Your task to perform on an android device: open the mobile data screen to see how much data has been used Image 0: 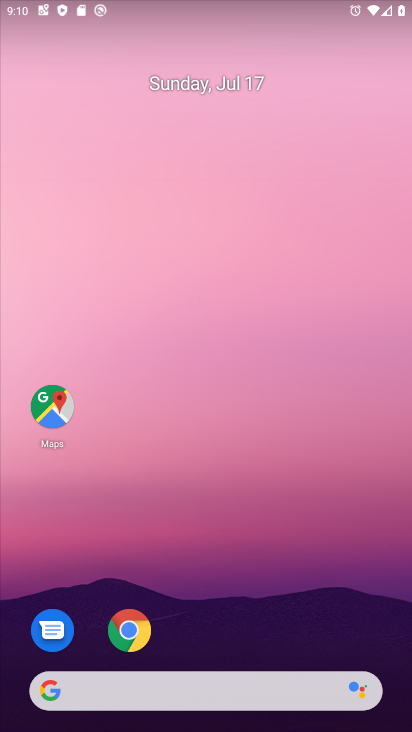
Step 0: drag from (340, 612) to (366, 140)
Your task to perform on an android device: open the mobile data screen to see how much data has been used Image 1: 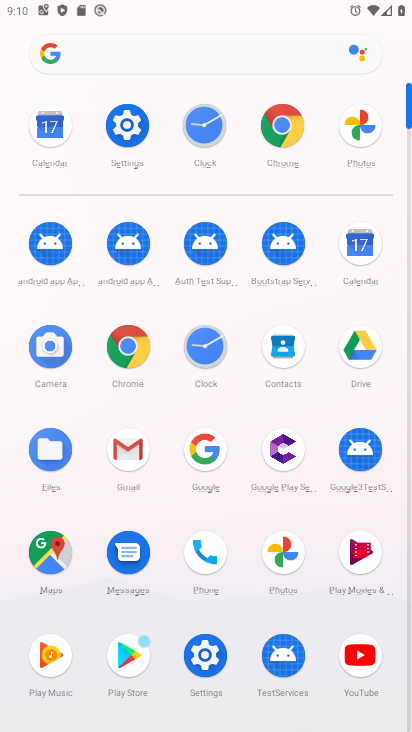
Step 1: click (132, 129)
Your task to perform on an android device: open the mobile data screen to see how much data has been used Image 2: 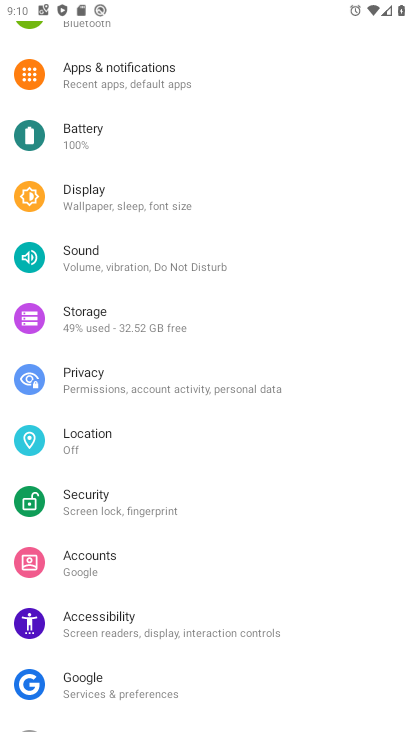
Step 2: drag from (303, 198) to (306, 272)
Your task to perform on an android device: open the mobile data screen to see how much data has been used Image 3: 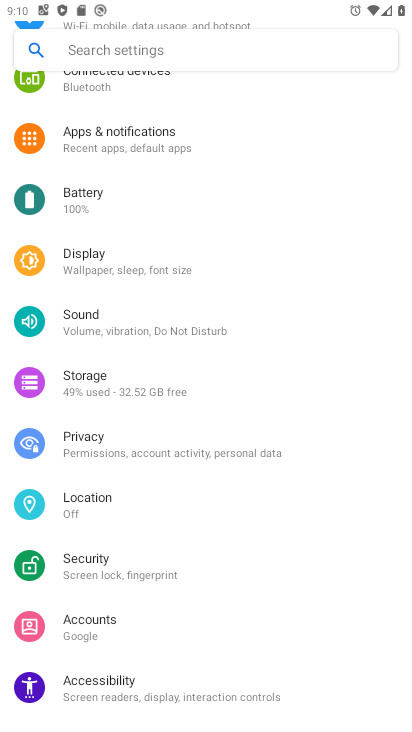
Step 3: drag from (304, 199) to (293, 285)
Your task to perform on an android device: open the mobile data screen to see how much data has been used Image 4: 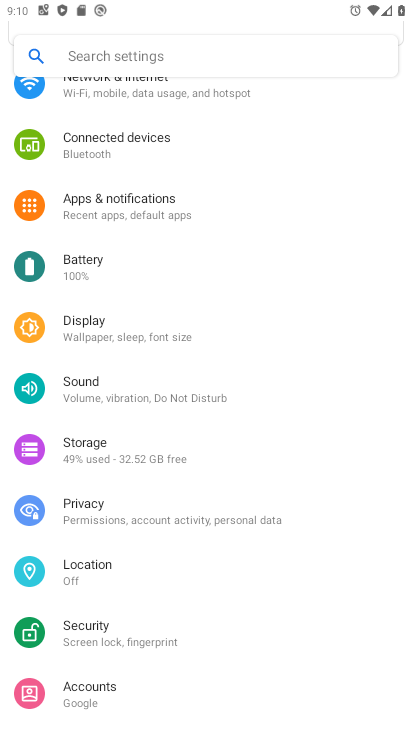
Step 4: drag from (291, 238) to (281, 310)
Your task to perform on an android device: open the mobile data screen to see how much data has been used Image 5: 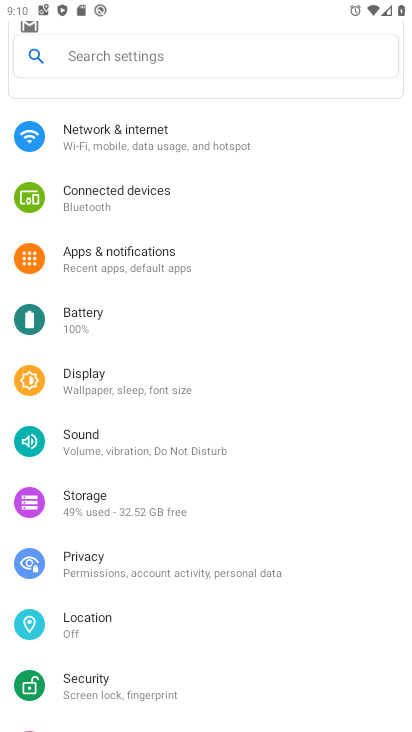
Step 5: drag from (293, 222) to (295, 316)
Your task to perform on an android device: open the mobile data screen to see how much data has been used Image 6: 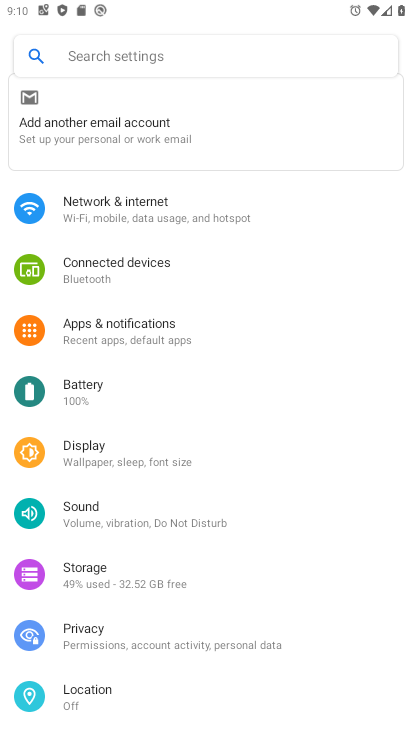
Step 6: drag from (295, 220) to (294, 328)
Your task to perform on an android device: open the mobile data screen to see how much data has been used Image 7: 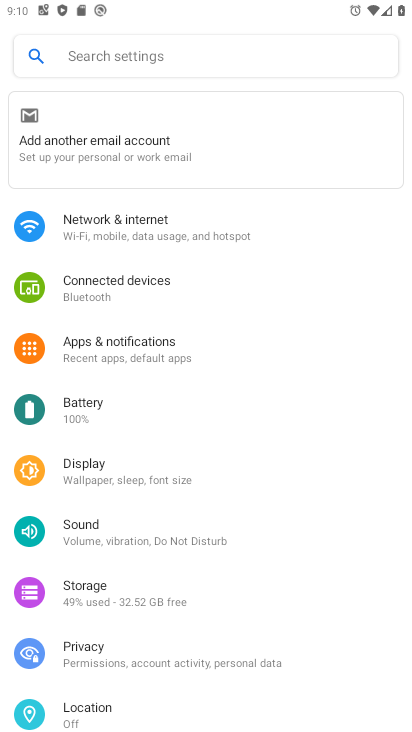
Step 7: click (254, 243)
Your task to perform on an android device: open the mobile data screen to see how much data has been used Image 8: 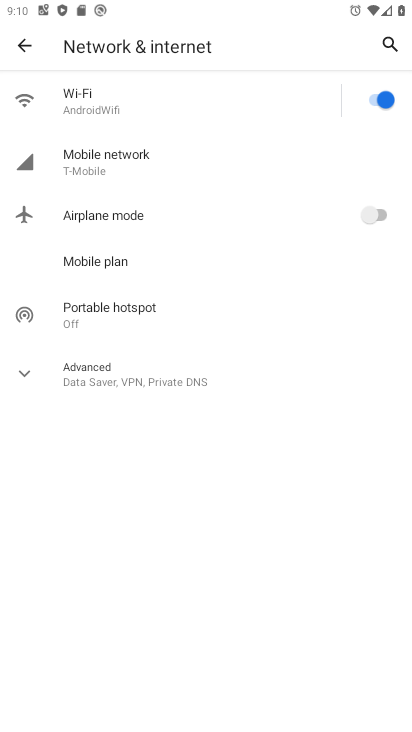
Step 8: click (140, 164)
Your task to perform on an android device: open the mobile data screen to see how much data has been used Image 9: 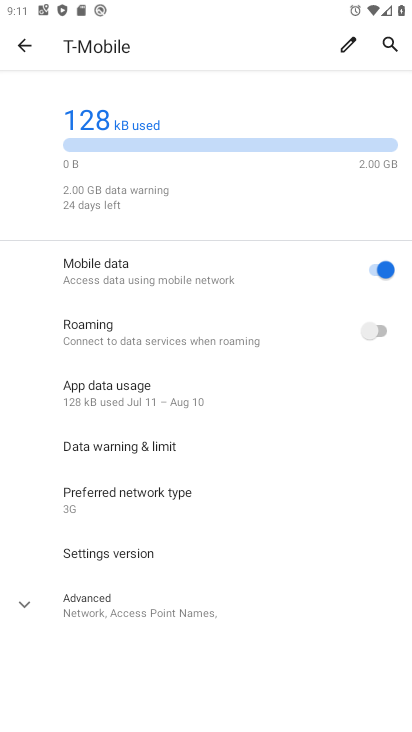
Step 9: click (186, 393)
Your task to perform on an android device: open the mobile data screen to see how much data has been used Image 10: 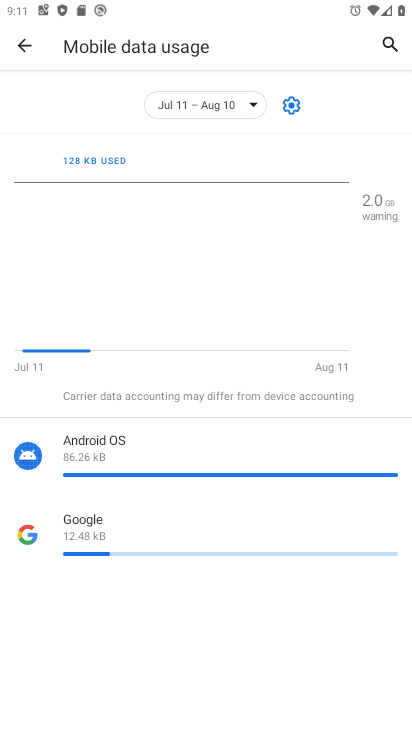
Step 10: task complete